Your task to perform on an android device: show emergency info Image 0: 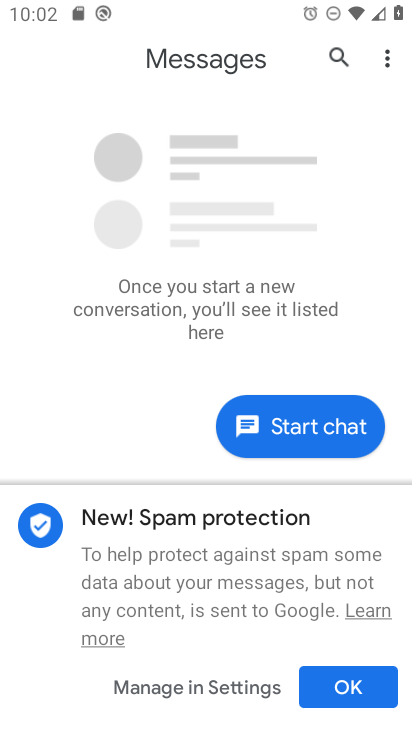
Step 0: press home button
Your task to perform on an android device: show emergency info Image 1: 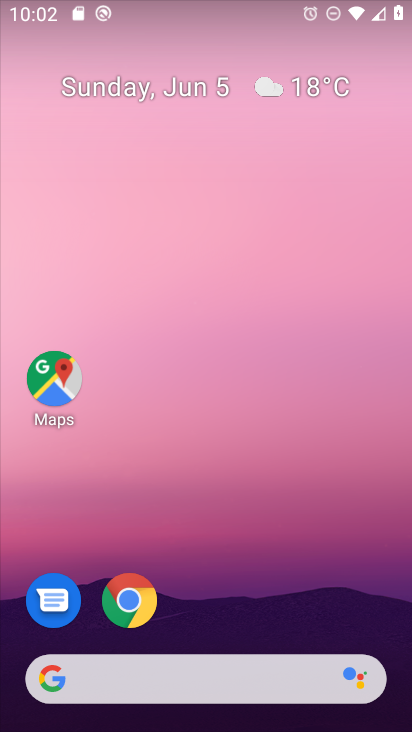
Step 1: drag from (276, 550) to (237, 39)
Your task to perform on an android device: show emergency info Image 2: 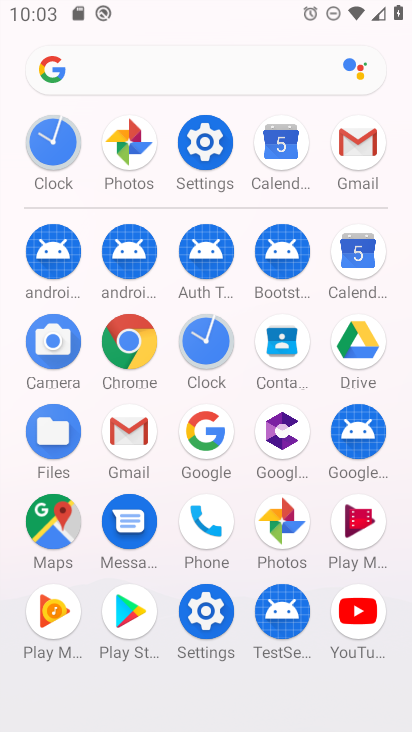
Step 2: click (221, 150)
Your task to perform on an android device: show emergency info Image 3: 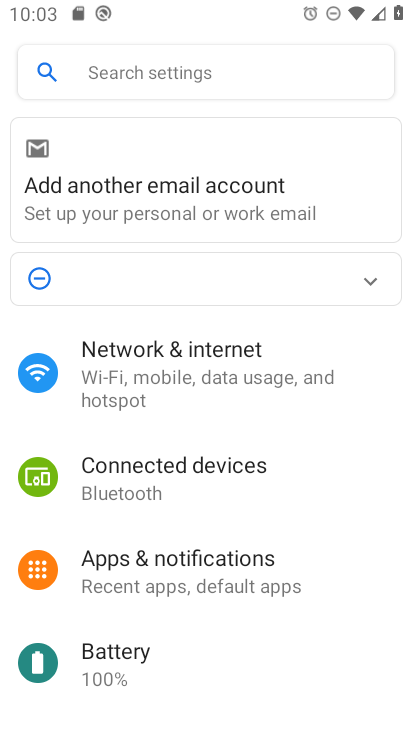
Step 3: drag from (261, 643) to (233, 47)
Your task to perform on an android device: show emergency info Image 4: 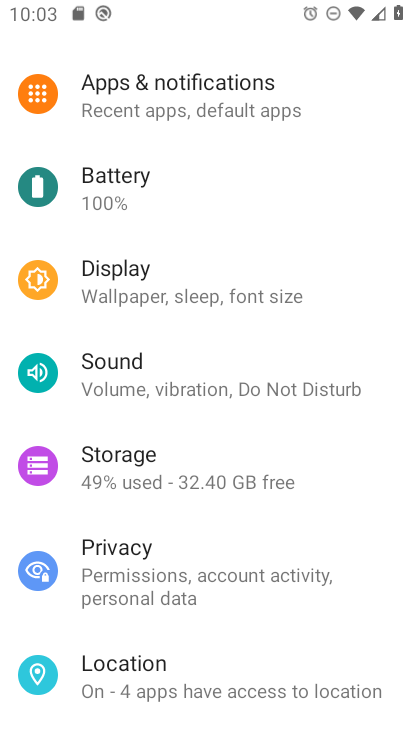
Step 4: drag from (269, 593) to (246, 53)
Your task to perform on an android device: show emergency info Image 5: 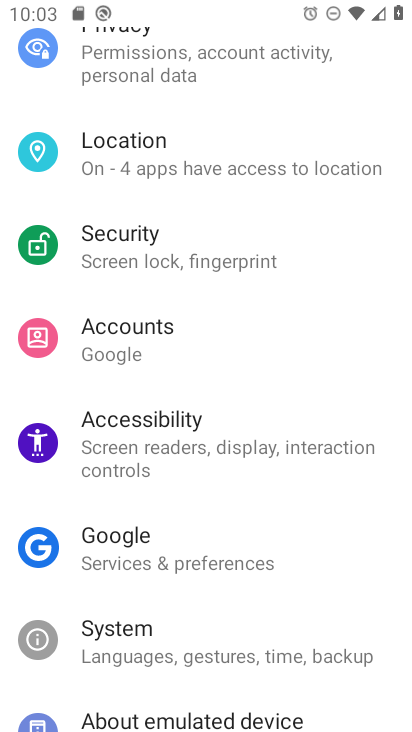
Step 5: drag from (257, 538) to (252, 336)
Your task to perform on an android device: show emergency info Image 6: 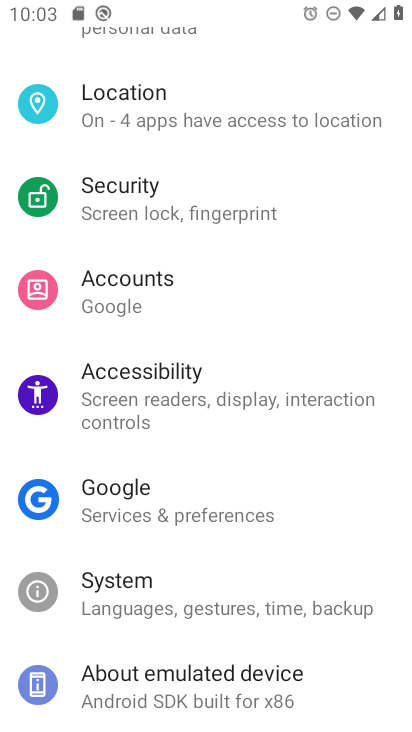
Step 6: click (259, 689)
Your task to perform on an android device: show emergency info Image 7: 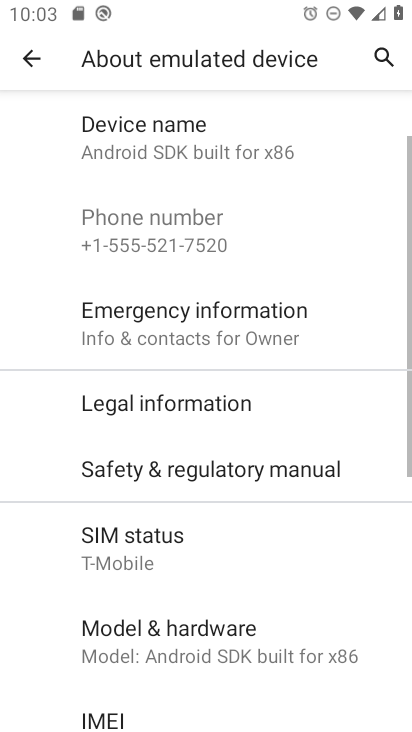
Step 7: click (302, 331)
Your task to perform on an android device: show emergency info Image 8: 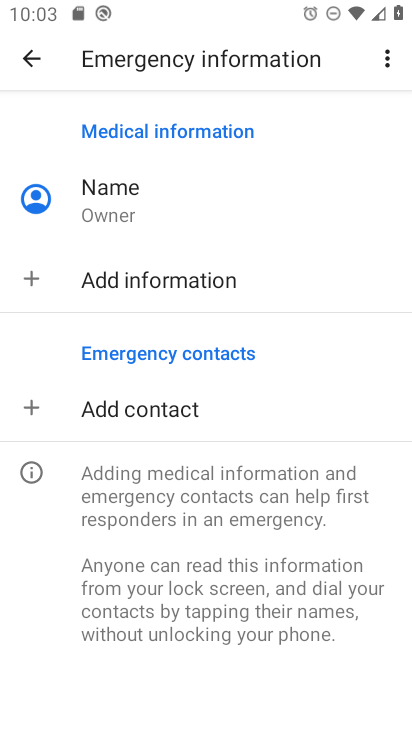
Step 8: task complete